Your task to perform on an android device: Turn on the flashlight Image 0: 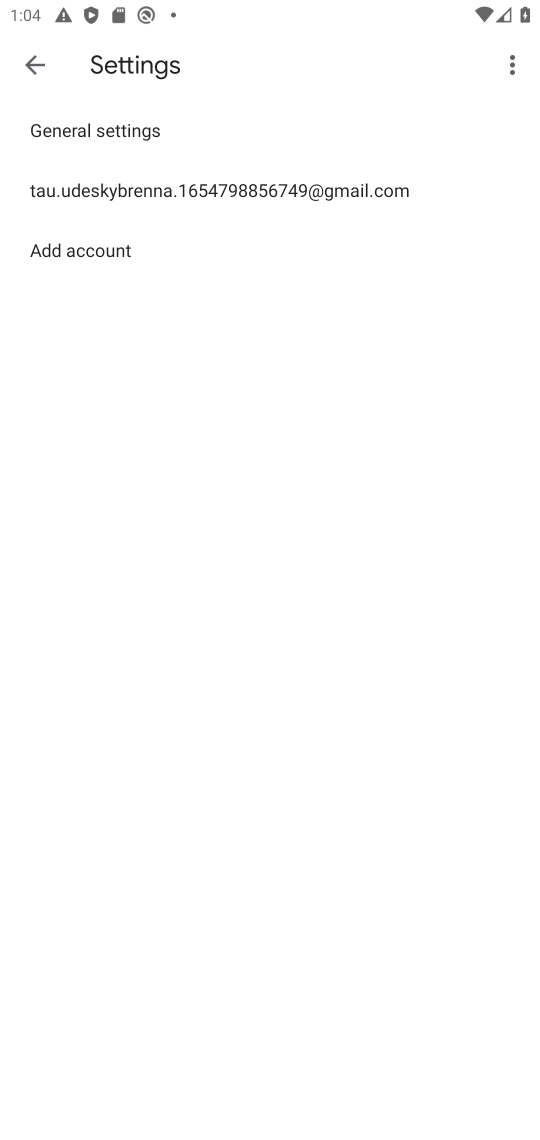
Step 0: click (37, 59)
Your task to perform on an android device: Turn on the flashlight Image 1: 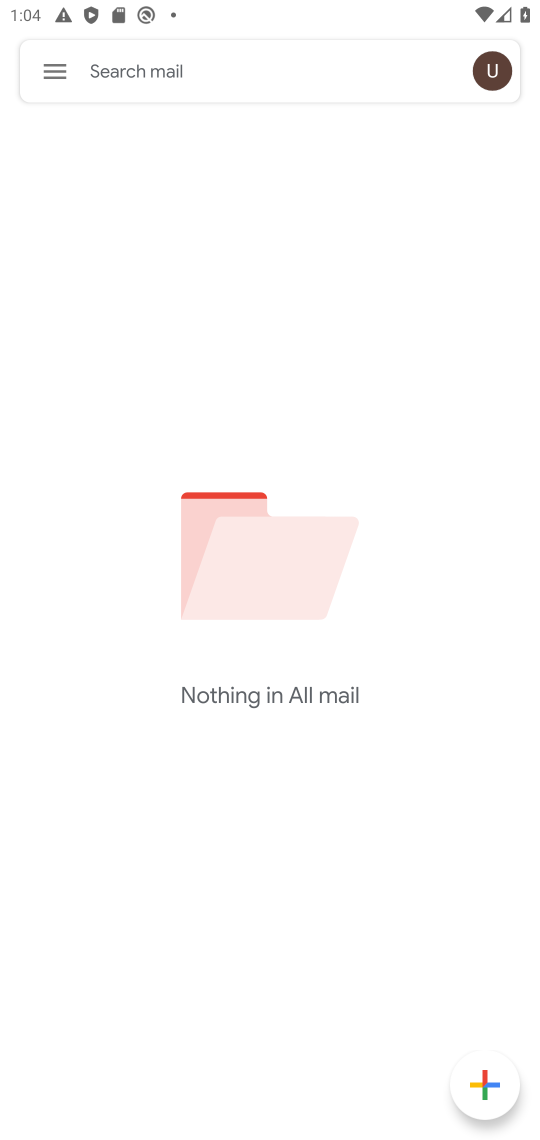
Step 1: task complete